Your task to perform on an android device: Clear the shopping cart on amazon.com. Search for "panasonic triple a" on amazon.com, select the first entry, add it to the cart, then select checkout. Image 0: 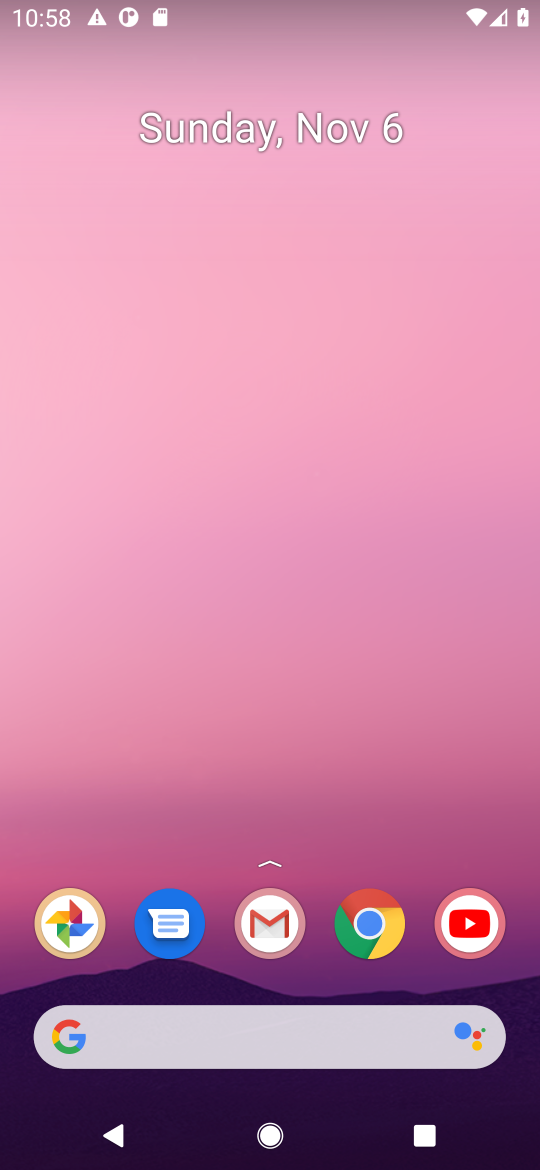
Step 0: click (381, 934)
Your task to perform on an android device: Clear the shopping cart on amazon.com. Search for "panasonic triple a" on amazon.com, select the first entry, add it to the cart, then select checkout. Image 1: 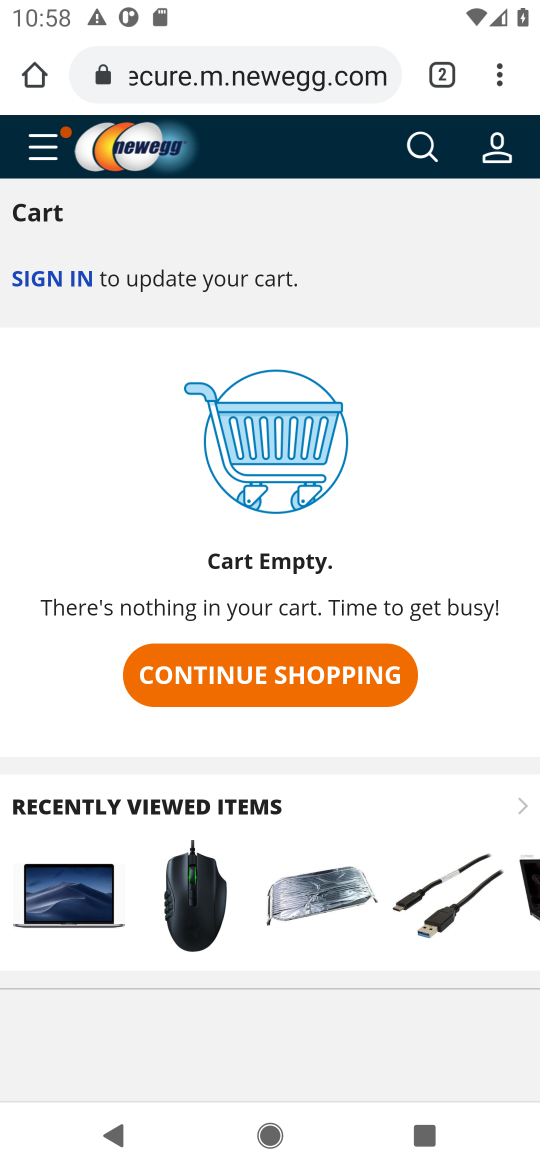
Step 1: click (264, 91)
Your task to perform on an android device: Clear the shopping cart on amazon.com. Search for "panasonic triple a" on amazon.com, select the first entry, add it to the cart, then select checkout. Image 2: 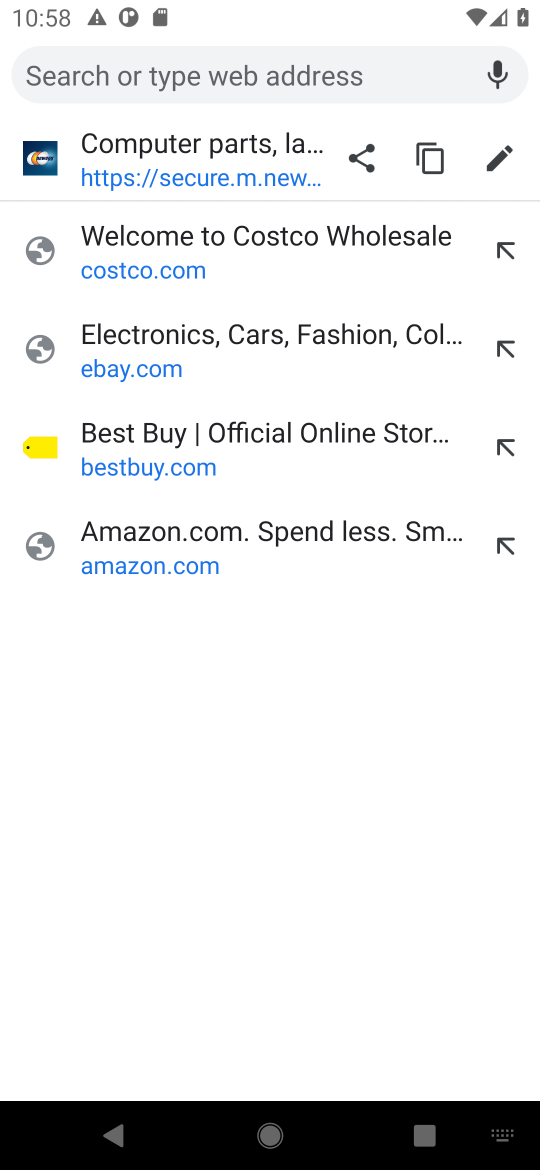
Step 2: click (162, 562)
Your task to perform on an android device: Clear the shopping cart on amazon.com. Search for "panasonic triple a" on amazon.com, select the first entry, add it to the cart, then select checkout. Image 3: 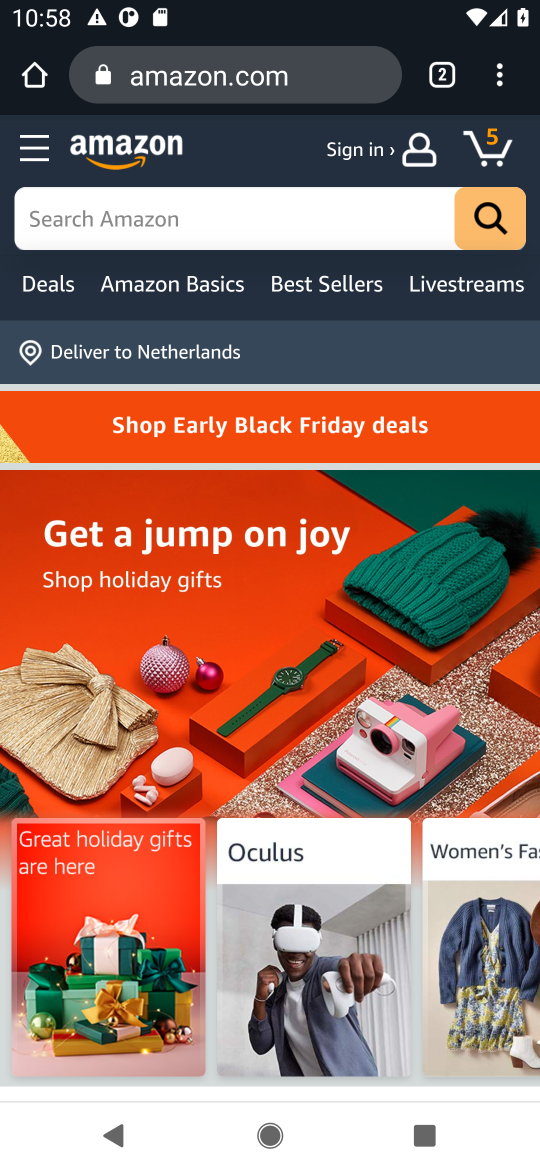
Step 3: click (492, 152)
Your task to perform on an android device: Clear the shopping cart on amazon.com. Search for "panasonic triple a" on amazon.com, select the first entry, add it to the cart, then select checkout. Image 4: 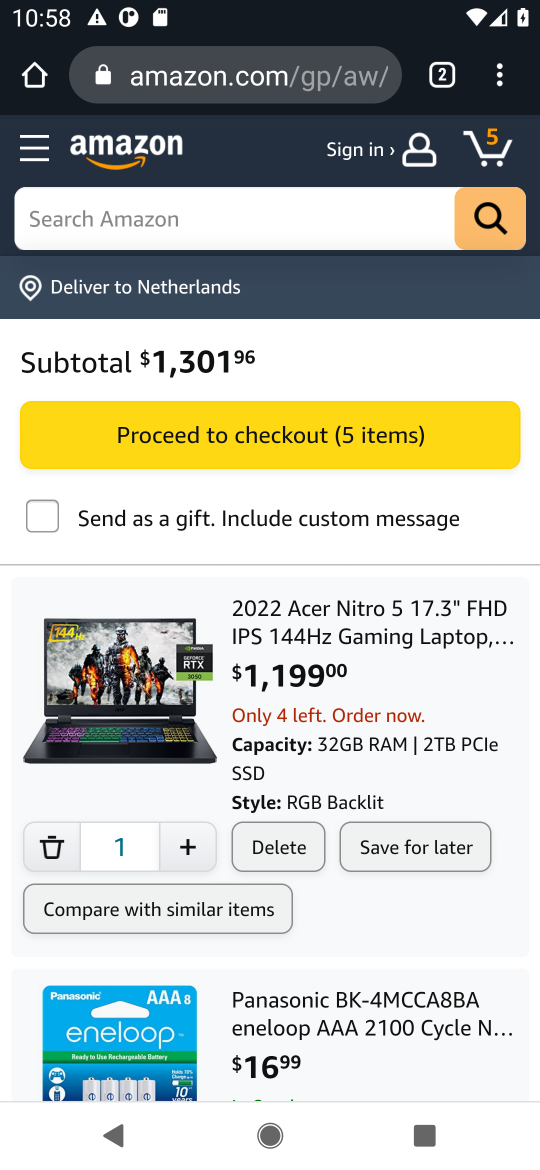
Step 4: click (261, 853)
Your task to perform on an android device: Clear the shopping cart on amazon.com. Search for "panasonic triple a" on amazon.com, select the first entry, add it to the cart, then select checkout. Image 5: 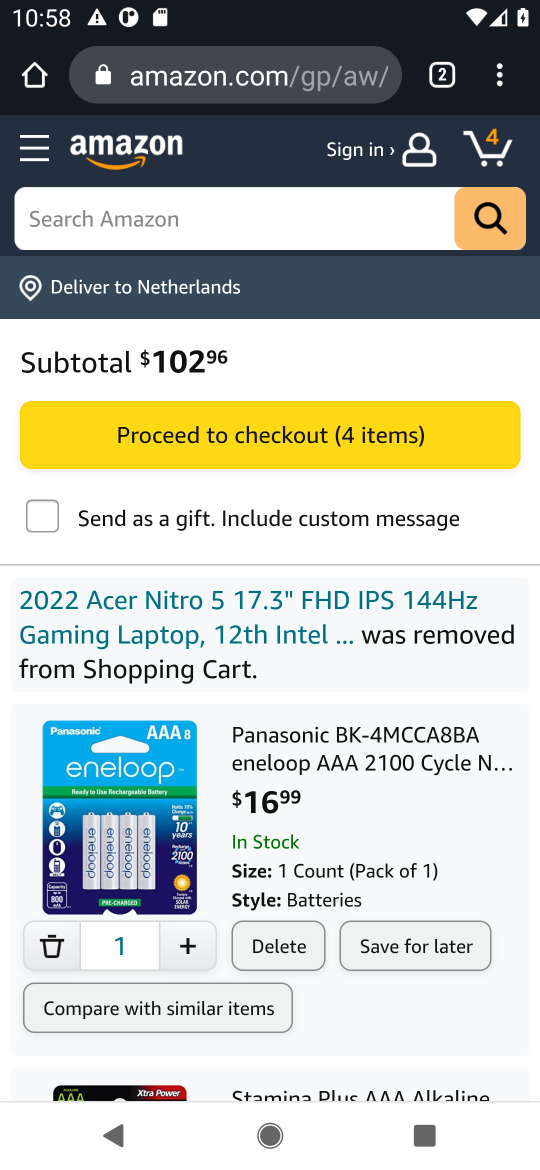
Step 5: click (264, 941)
Your task to perform on an android device: Clear the shopping cart on amazon.com. Search for "panasonic triple a" on amazon.com, select the first entry, add it to the cart, then select checkout. Image 6: 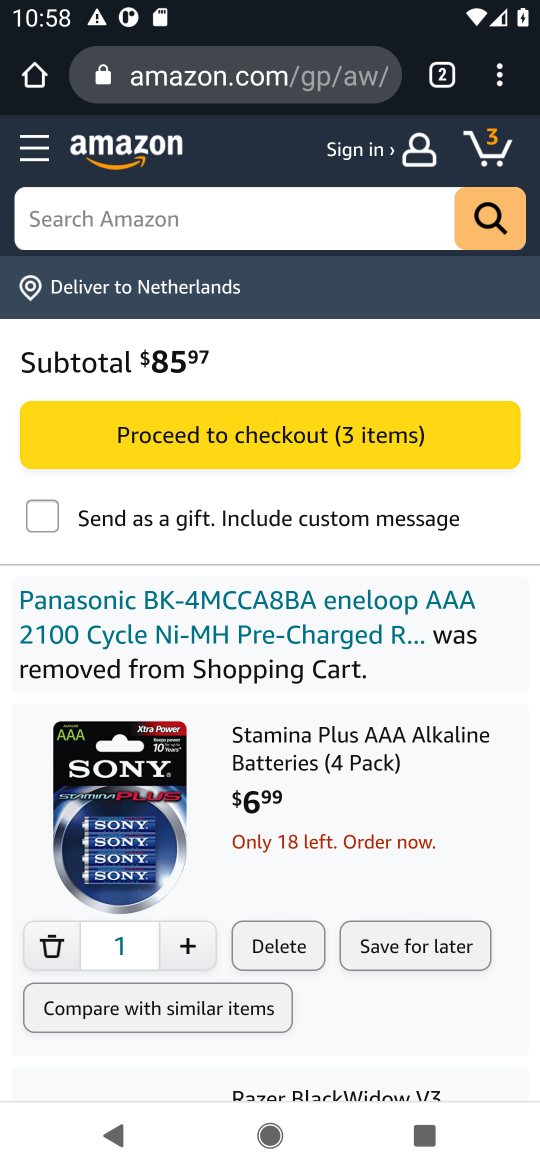
Step 6: click (264, 941)
Your task to perform on an android device: Clear the shopping cart on amazon.com. Search for "panasonic triple a" on amazon.com, select the first entry, add it to the cart, then select checkout. Image 7: 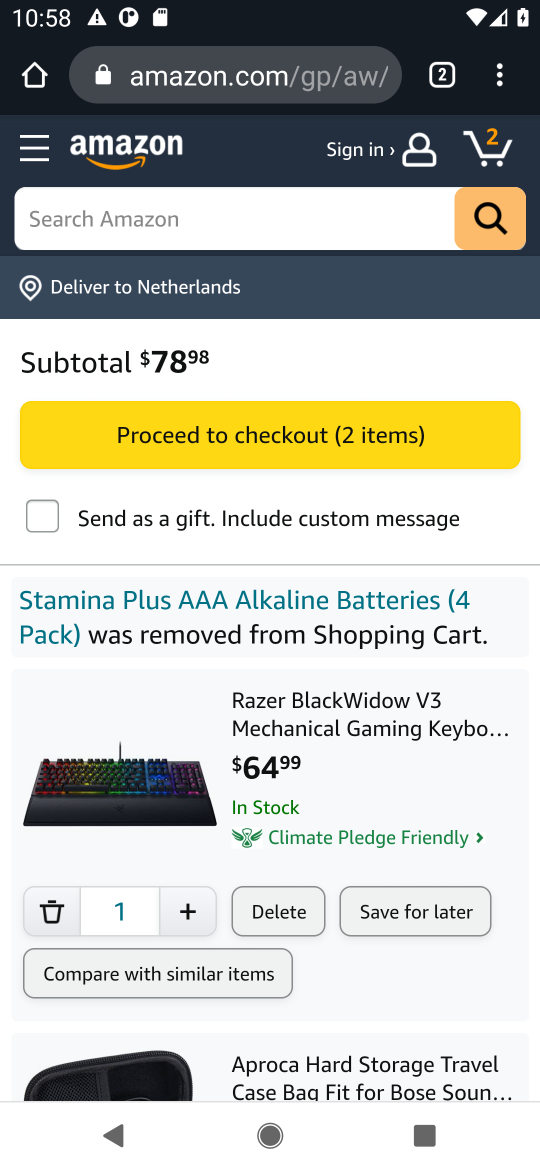
Step 7: click (278, 916)
Your task to perform on an android device: Clear the shopping cart on amazon.com. Search for "panasonic triple a" on amazon.com, select the first entry, add it to the cart, then select checkout. Image 8: 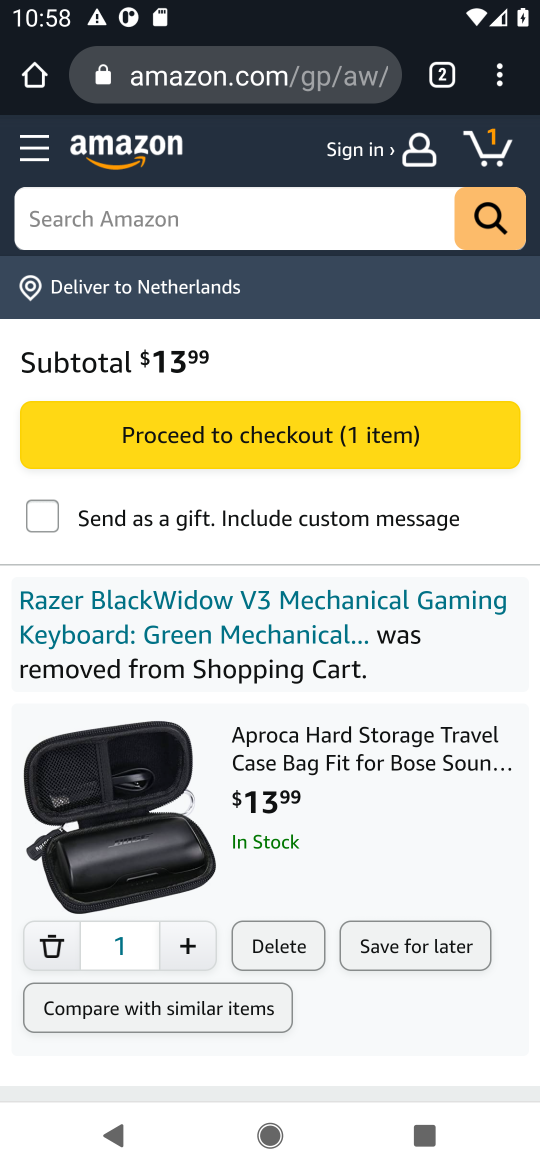
Step 8: click (272, 952)
Your task to perform on an android device: Clear the shopping cart on amazon.com. Search for "panasonic triple a" on amazon.com, select the first entry, add it to the cart, then select checkout. Image 9: 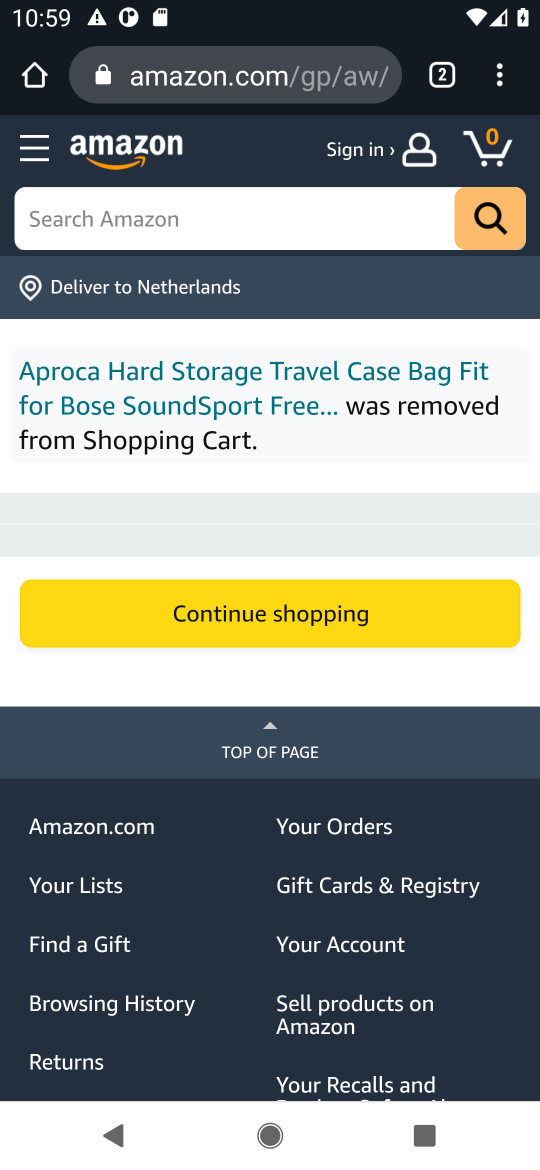
Step 9: click (282, 214)
Your task to perform on an android device: Clear the shopping cart on amazon.com. Search for "panasonic triple a" on amazon.com, select the first entry, add it to the cart, then select checkout. Image 10: 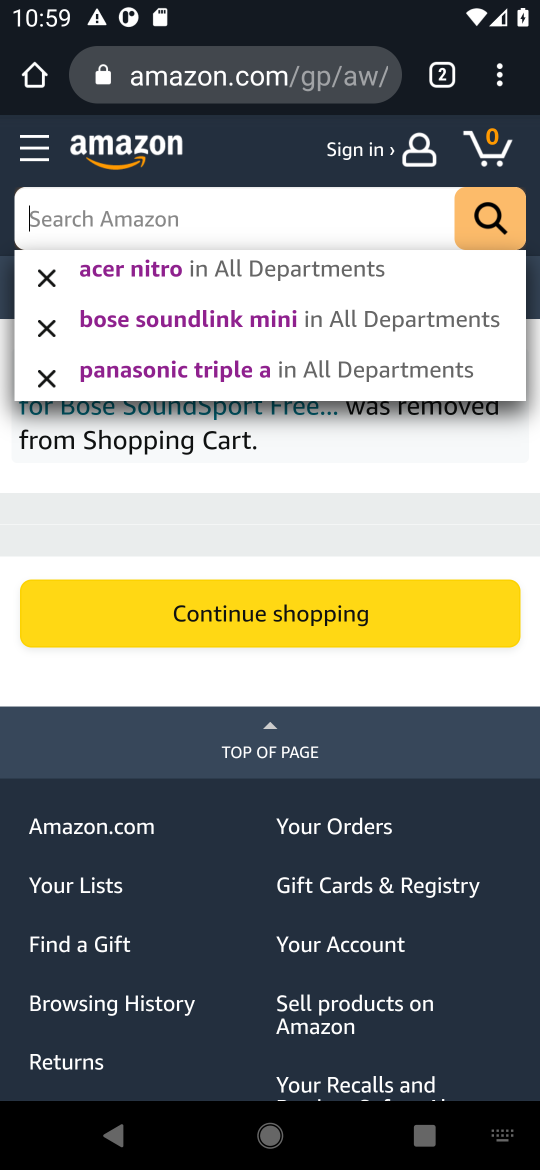
Step 10: type "panasonic triple a"
Your task to perform on an android device: Clear the shopping cart on amazon.com. Search for "panasonic triple a" on amazon.com, select the first entry, add it to the cart, then select checkout. Image 11: 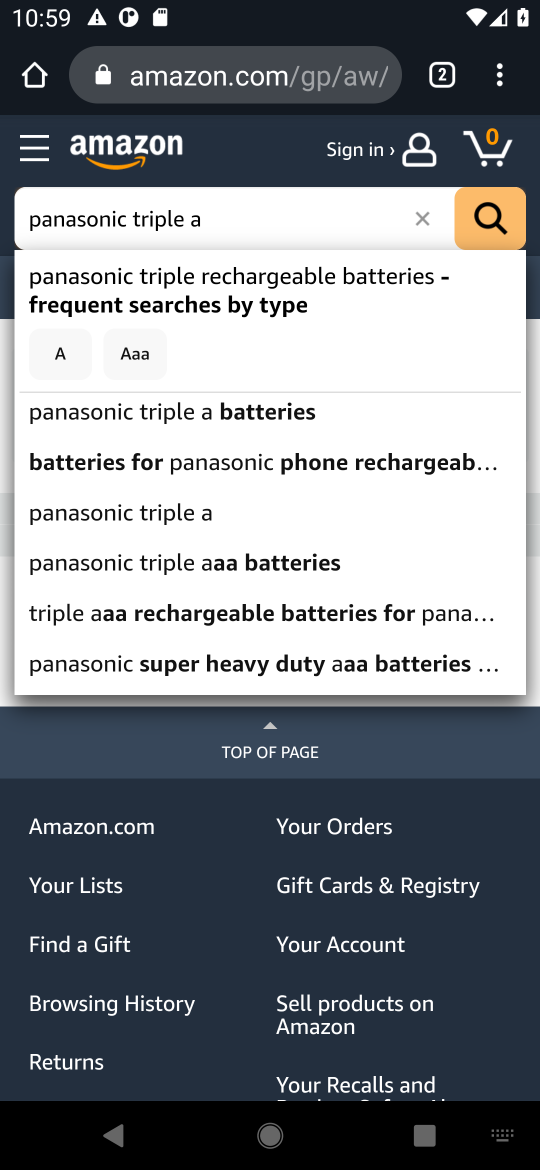
Step 11: click (480, 226)
Your task to perform on an android device: Clear the shopping cart on amazon.com. Search for "panasonic triple a" on amazon.com, select the first entry, add it to the cart, then select checkout. Image 12: 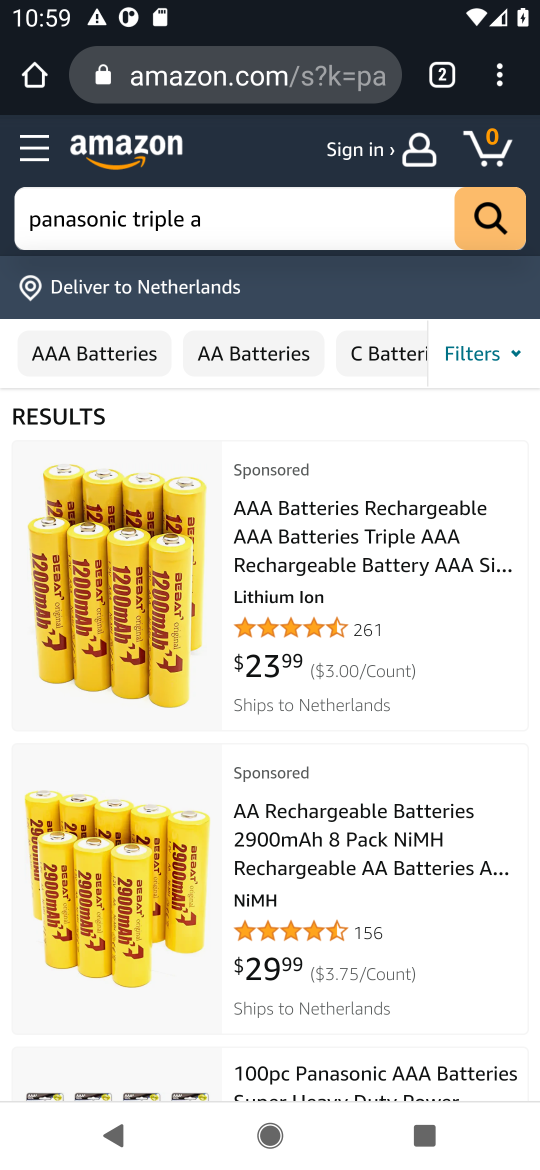
Step 12: task complete